Your task to perform on an android device: Open calendar and show me the second week of next month Image 0: 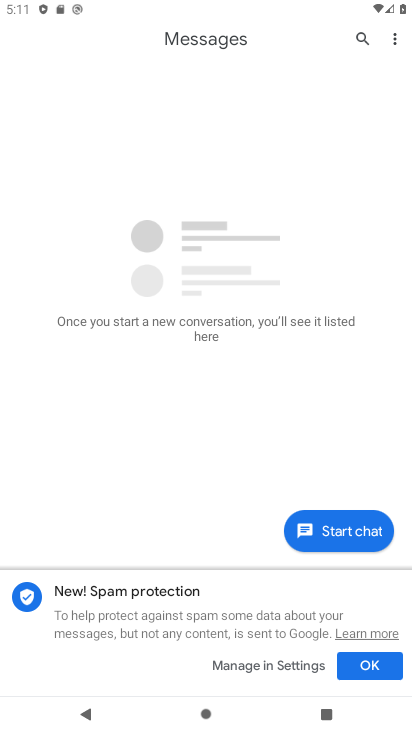
Step 0: click (309, 659)
Your task to perform on an android device: Open calendar and show me the second week of next month Image 1: 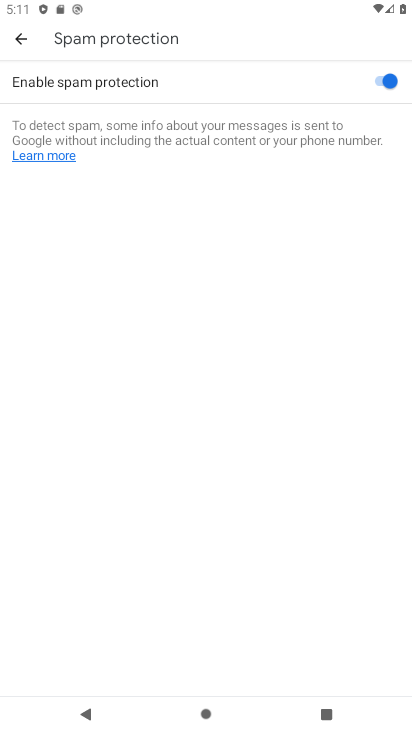
Step 1: press home button
Your task to perform on an android device: Open calendar and show me the second week of next month Image 2: 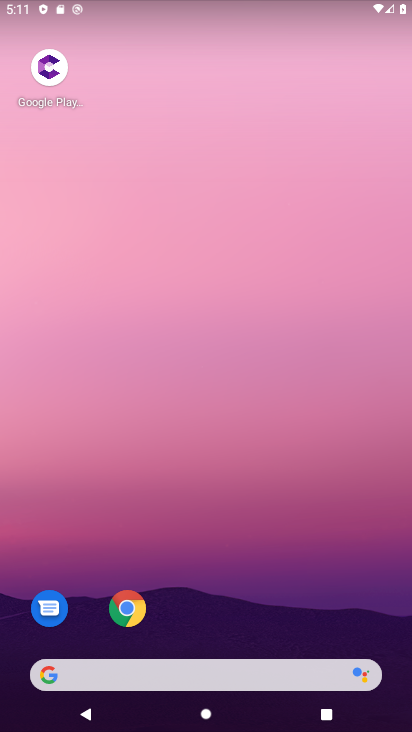
Step 2: drag from (236, 505) to (244, 313)
Your task to perform on an android device: Open calendar and show me the second week of next month Image 3: 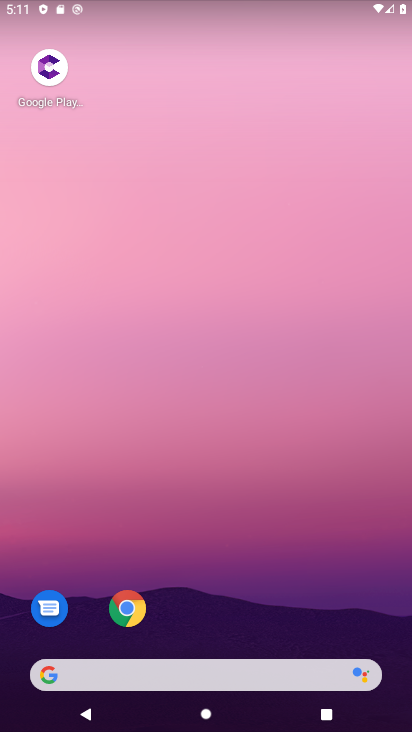
Step 3: drag from (215, 668) to (215, 301)
Your task to perform on an android device: Open calendar and show me the second week of next month Image 4: 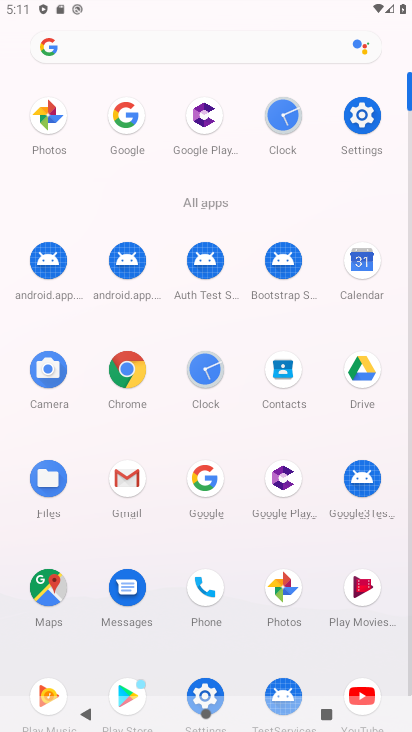
Step 4: click (363, 263)
Your task to perform on an android device: Open calendar and show me the second week of next month Image 5: 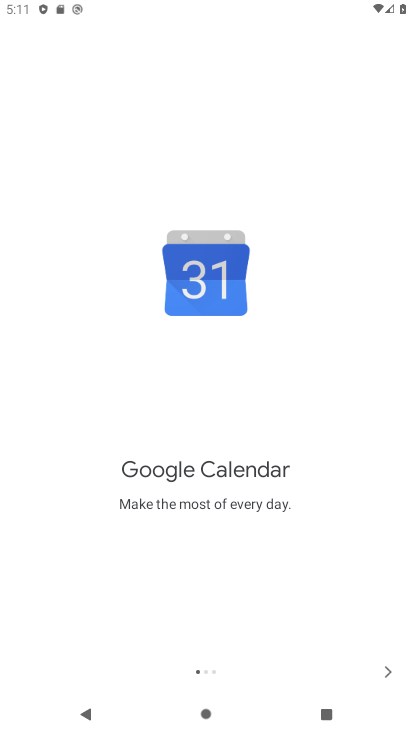
Step 5: click (381, 670)
Your task to perform on an android device: Open calendar and show me the second week of next month Image 6: 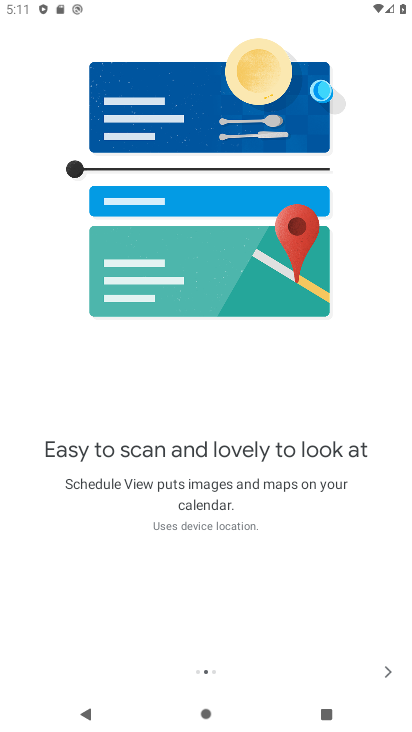
Step 6: click (381, 671)
Your task to perform on an android device: Open calendar and show me the second week of next month Image 7: 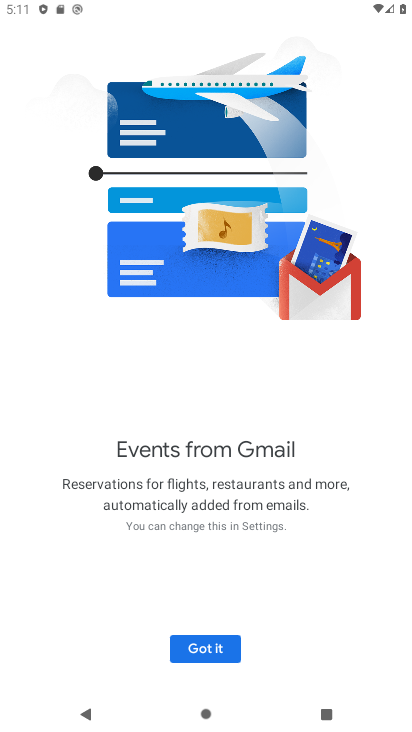
Step 7: click (221, 649)
Your task to perform on an android device: Open calendar and show me the second week of next month Image 8: 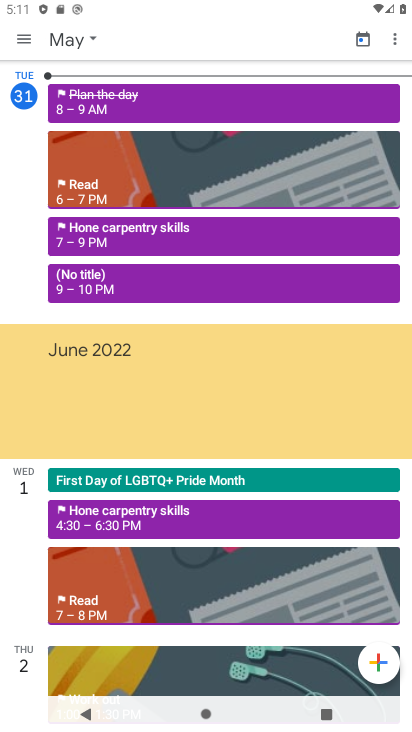
Step 8: click (82, 51)
Your task to perform on an android device: Open calendar and show me the second week of next month Image 9: 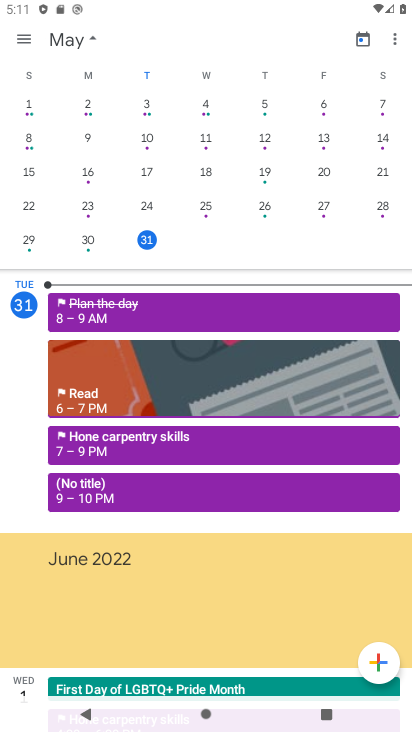
Step 9: drag from (363, 200) to (7, 155)
Your task to perform on an android device: Open calendar and show me the second week of next month Image 10: 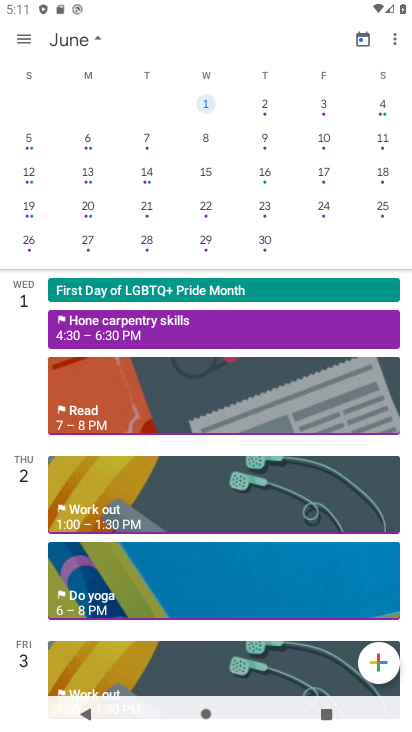
Step 10: click (27, 145)
Your task to perform on an android device: Open calendar and show me the second week of next month Image 11: 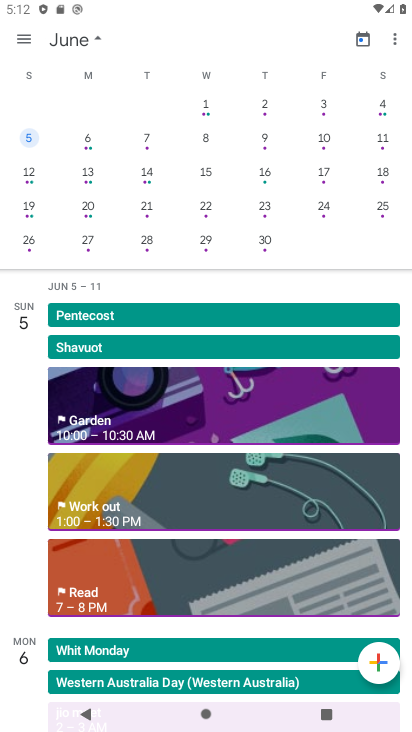
Step 11: task complete